Your task to perform on an android device: Show the shopping cart on ebay.com. Image 0: 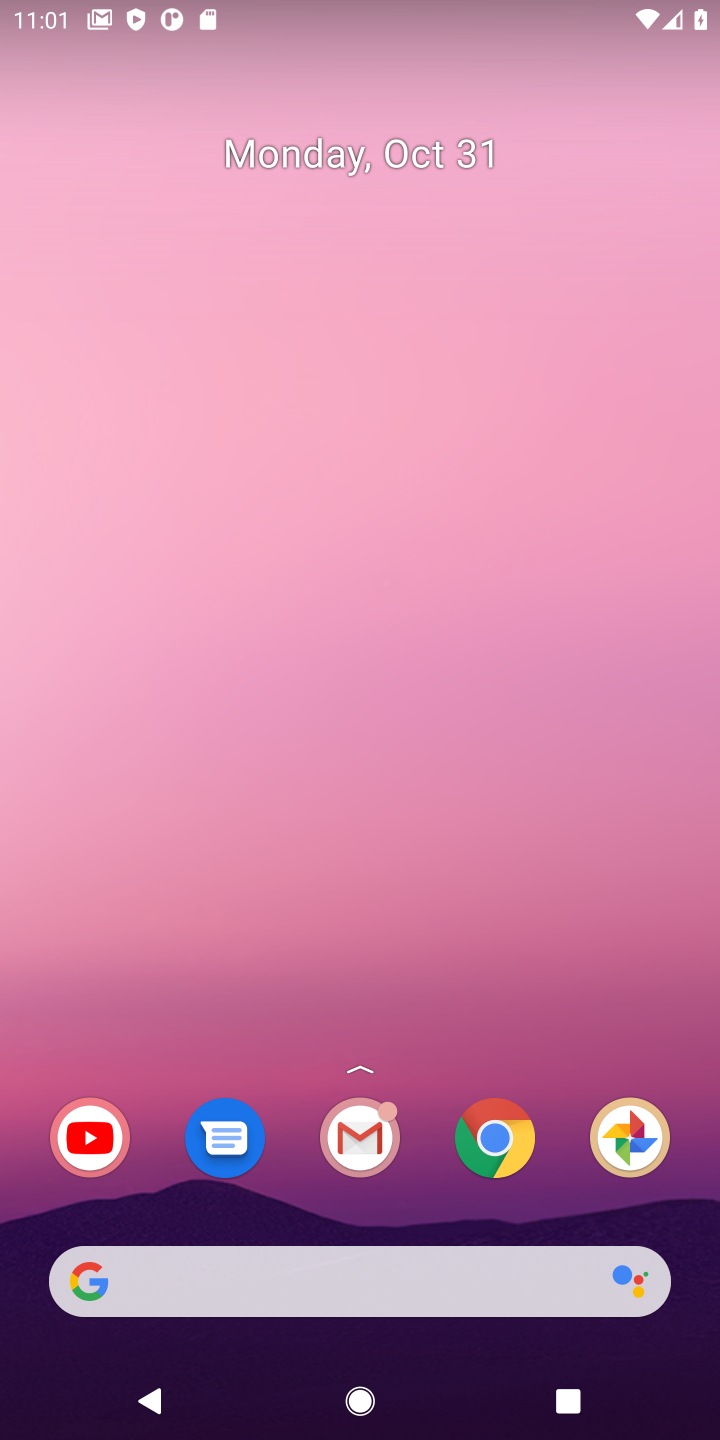
Step 0: click (510, 1161)
Your task to perform on an android device: Show the shopping cart on ebay.com. Image 1: 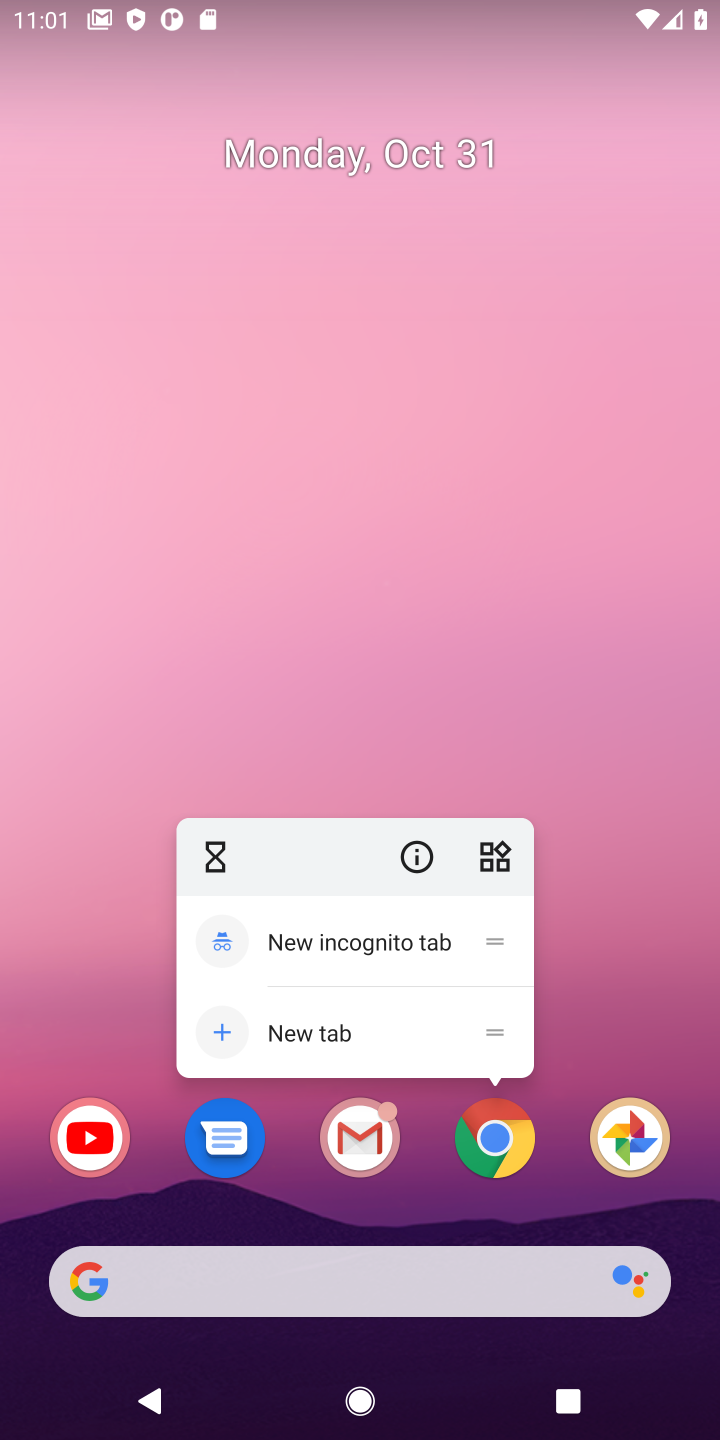
Step 1: click (505, 1143)
Your task to perform on an android device: Show the shopping cart on ebay.com. Image 2: 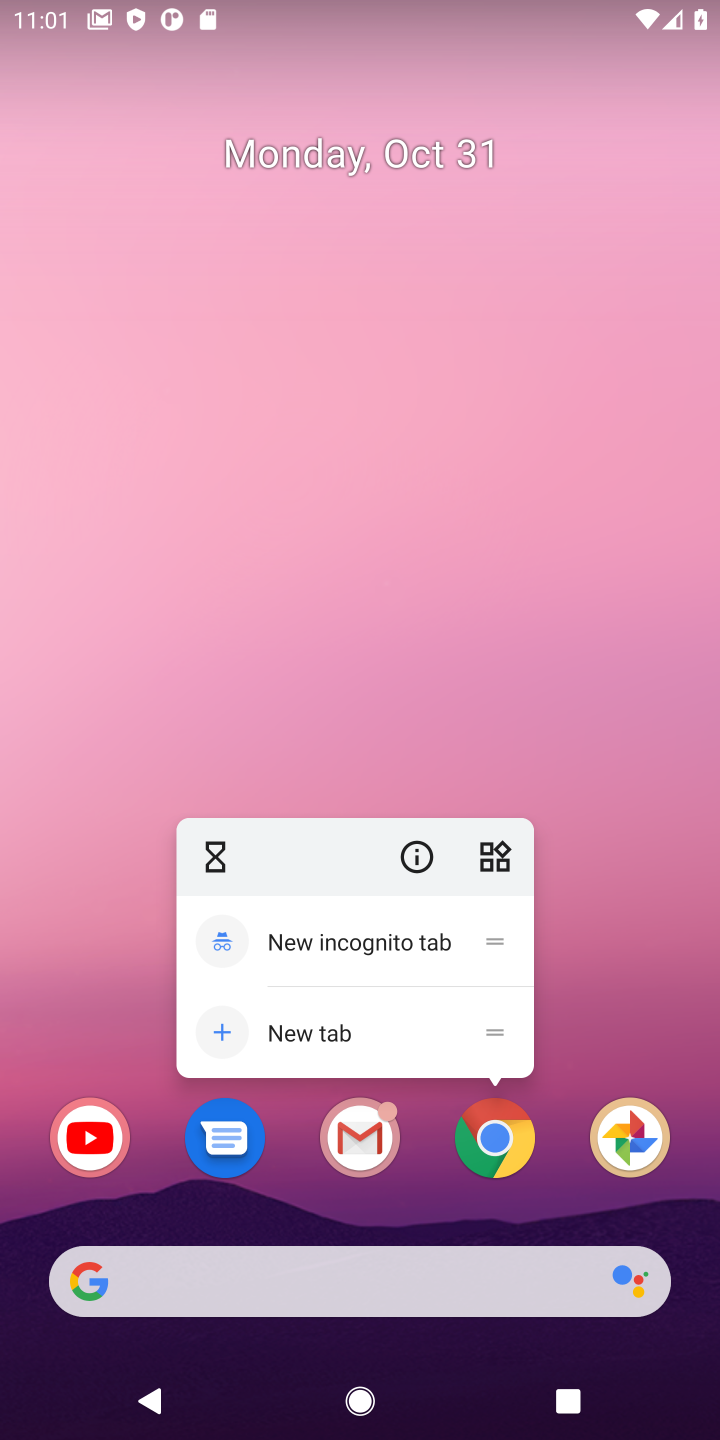
Step 2: click (491, 1143)
Your task to perform on an android device: Show the shopping cart on ebay.com. Image 3: 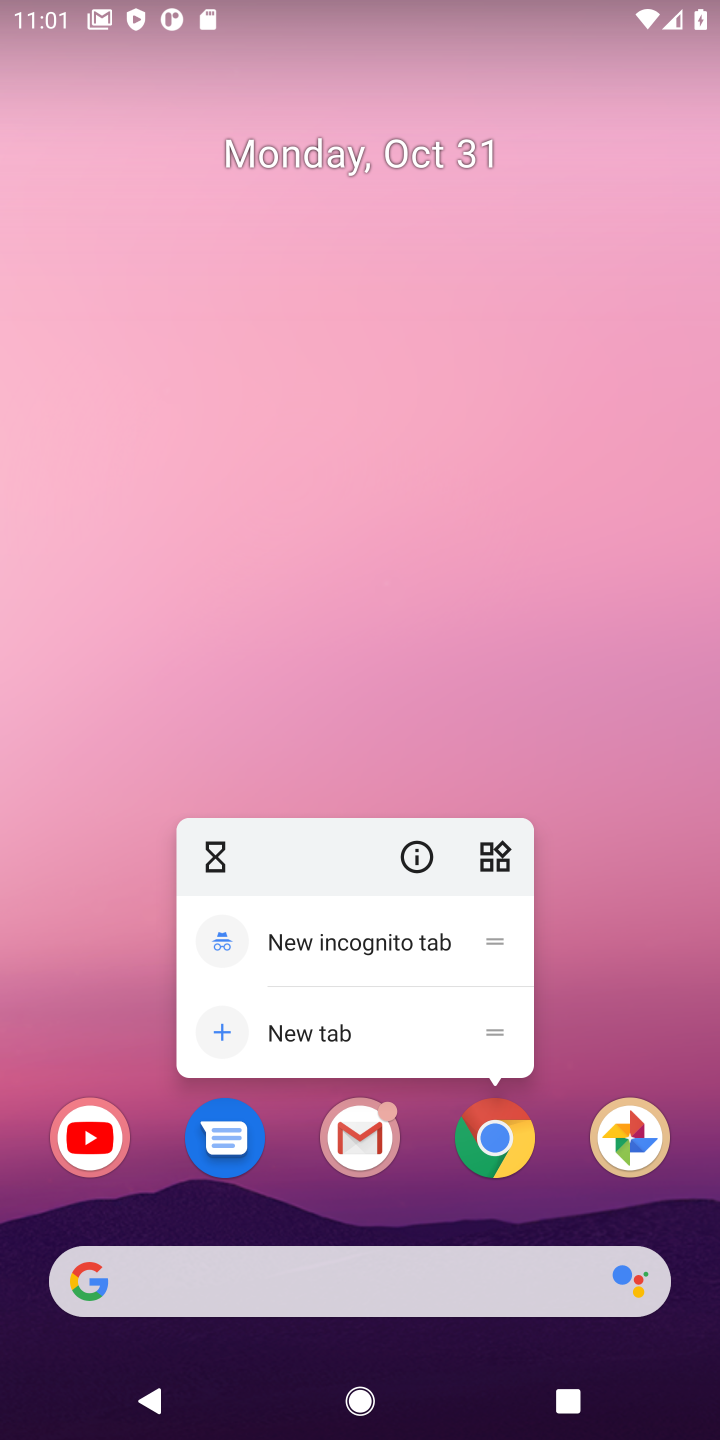
Step 3: click (495, 1136)
Your task to perform on an android device: Show the shopping cart on ebay.com. Image 4: 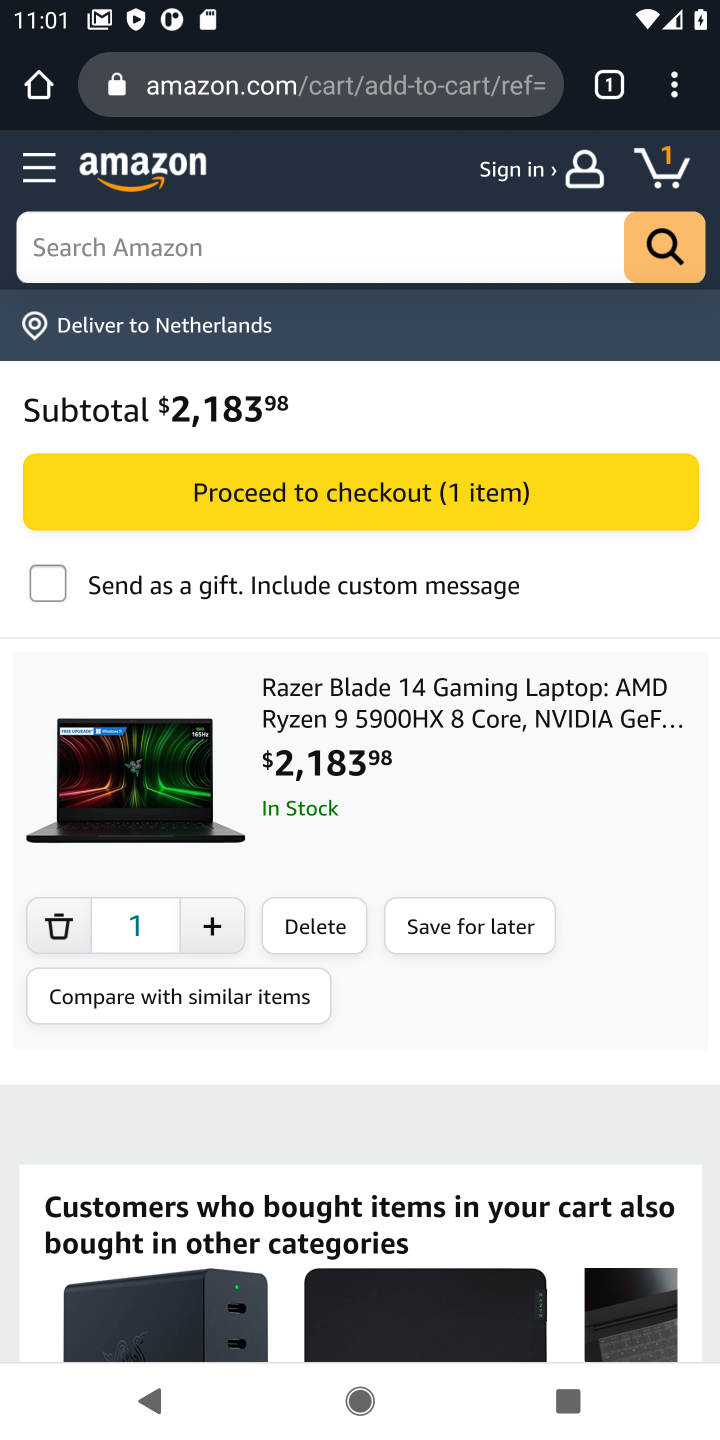
Step 4: click (355, 106)
Your task to perform on an android device: Show the shopping cart on ebay.com. Image 5: 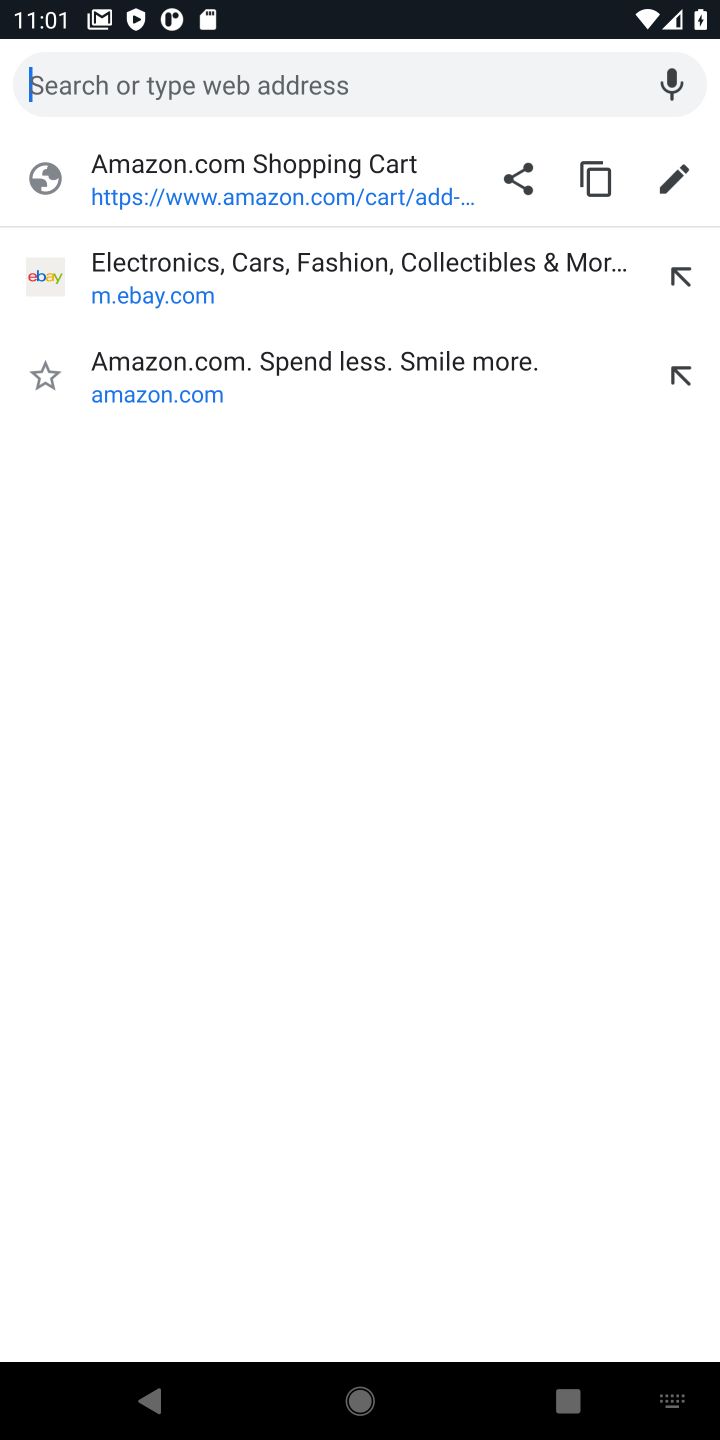
Step 5: type "ebay"
Your task to perform on an android device: Show the shopping cart on ebay.com. Image 6: 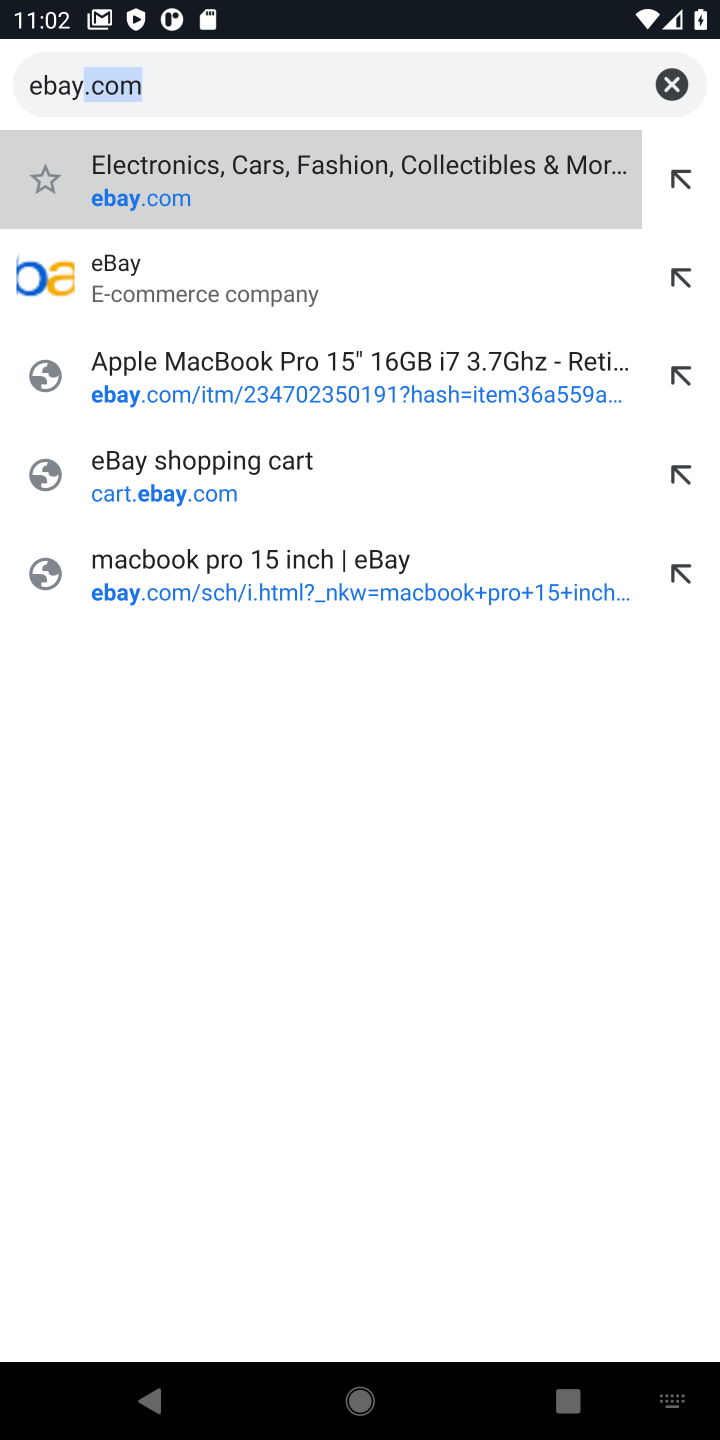
Step 6: click (243, 289)
Your task to perform on an android device: Show the shopping cart on ebay.com. Image 7: 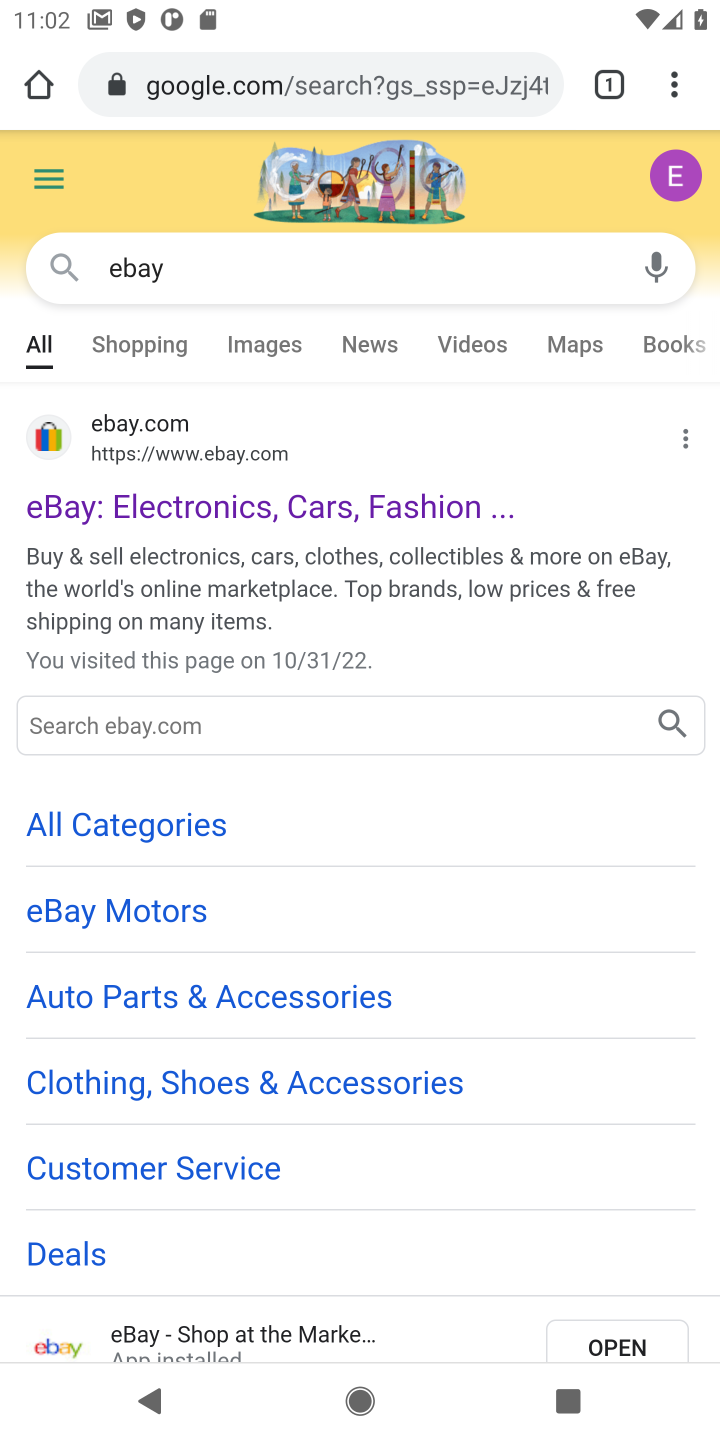
Step 7: click (45, 512)
Your task to perform on an android device: Show the shopping cart on ebay.com. Image 8: 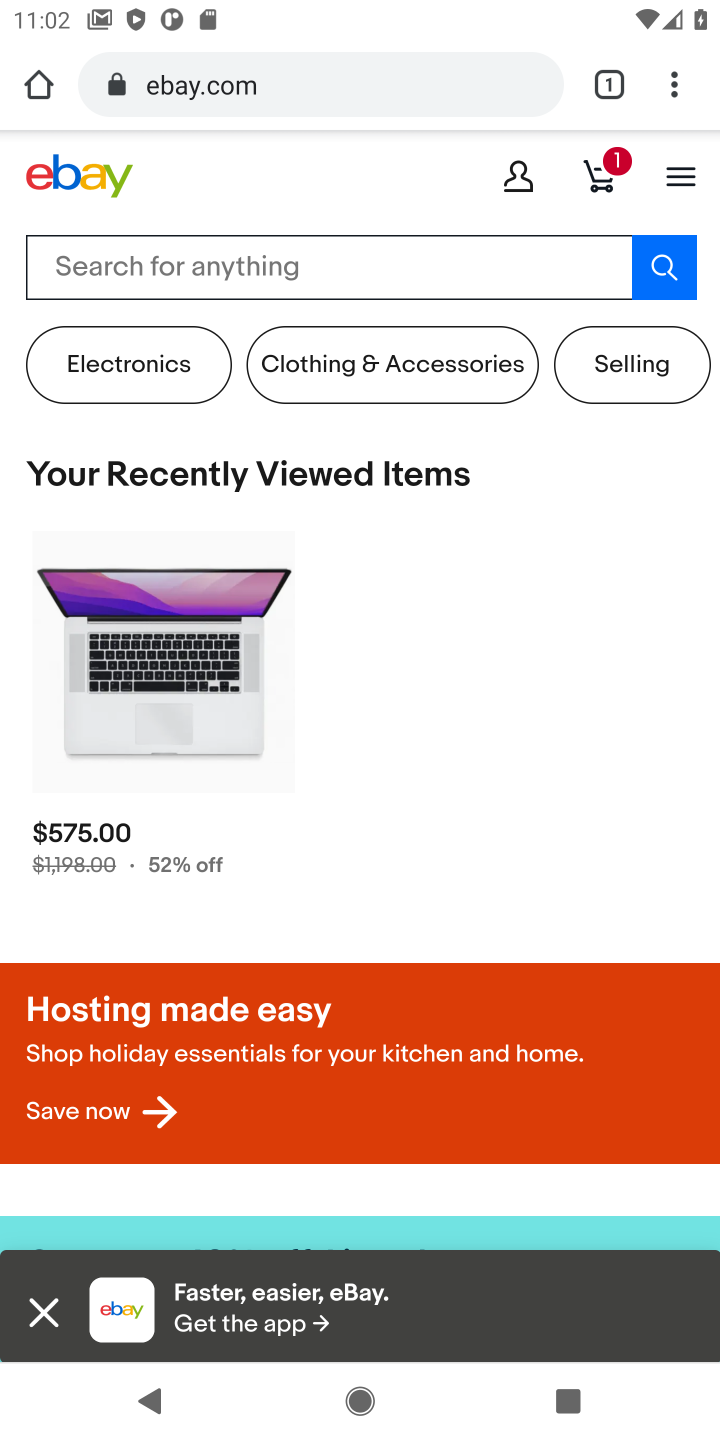
Step 8: click (593, 168)
Your task to perform on an android device: Show the shopping cart on ebay.com. Image 9: 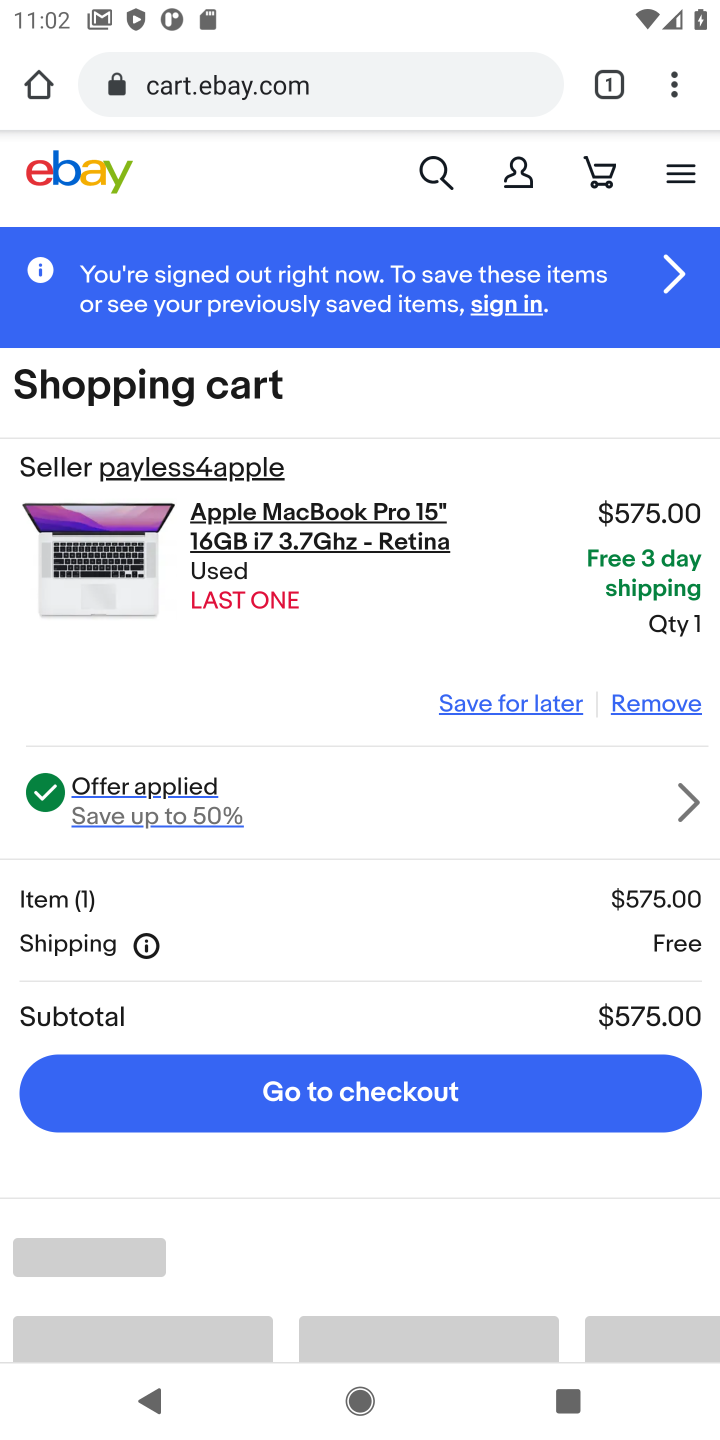
Step 9: click (630, 166)
Your task to perform on an android device: Show the shopping cart on ebay.com. Image 10: 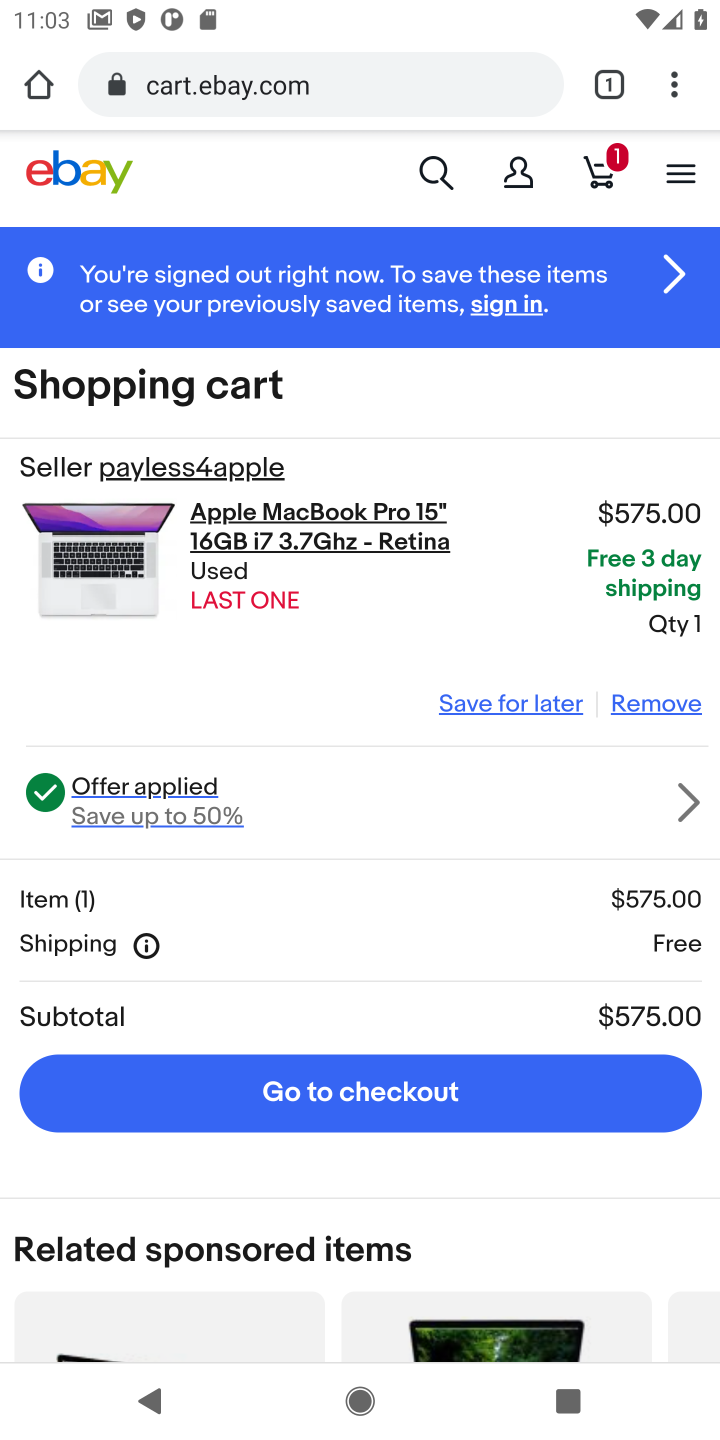
Step 10: task complete